Your task to perform on an android device: open app "Google Play Music" (install if not already installed) Image 0: 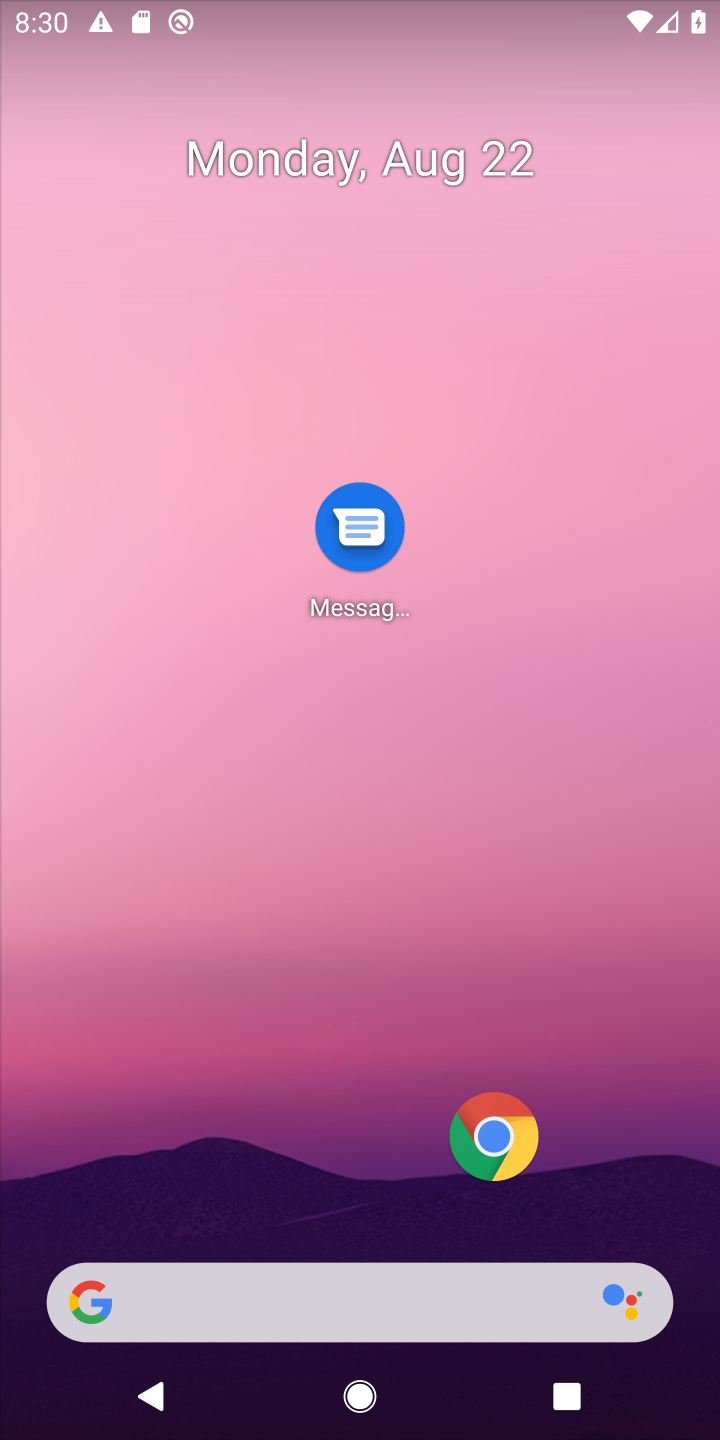
Step 0: drag from (265, 1165) to (306, 405)
Your task to perform on an android device: open app "Google Play Music" (install if not already installed) Image 1: 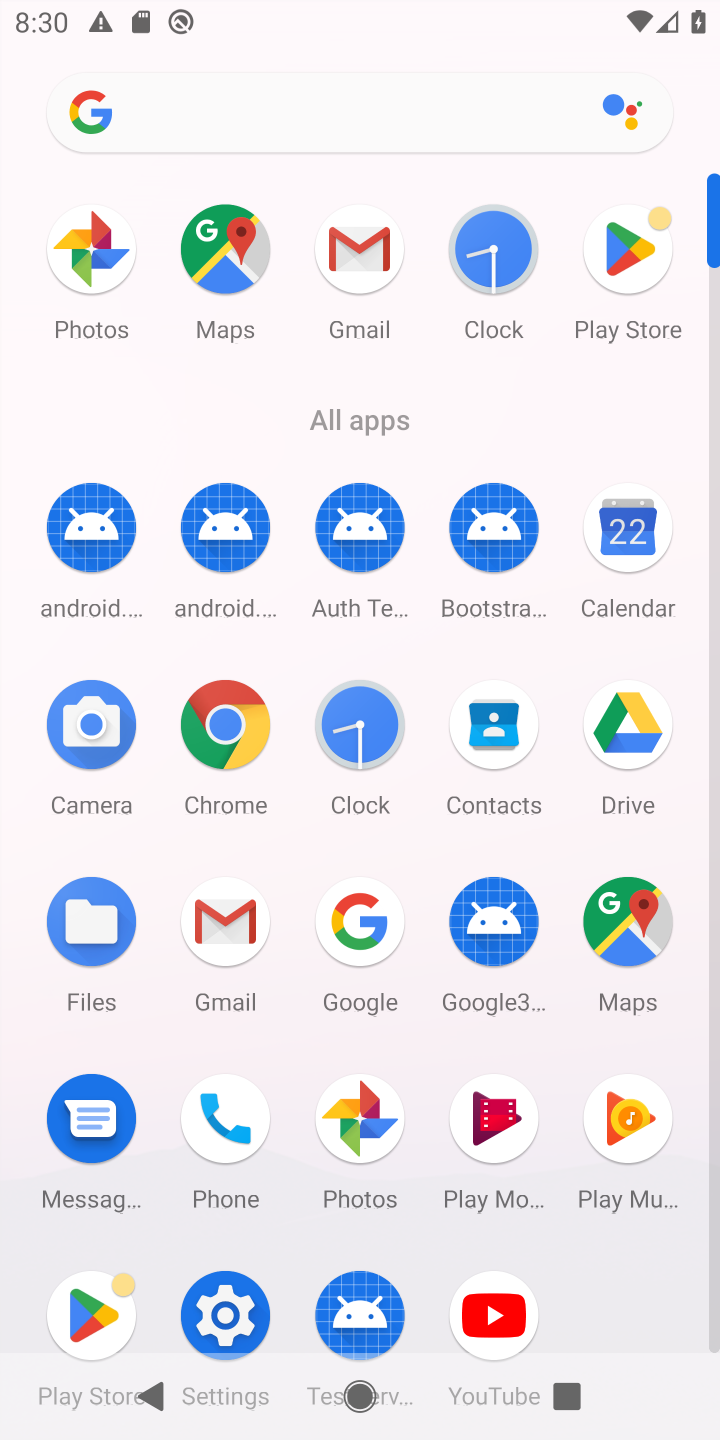
Step 1: click (653, 241)
Your task to perform on an android device: open app "Google Play Music" (install if not already installed) Image 2: 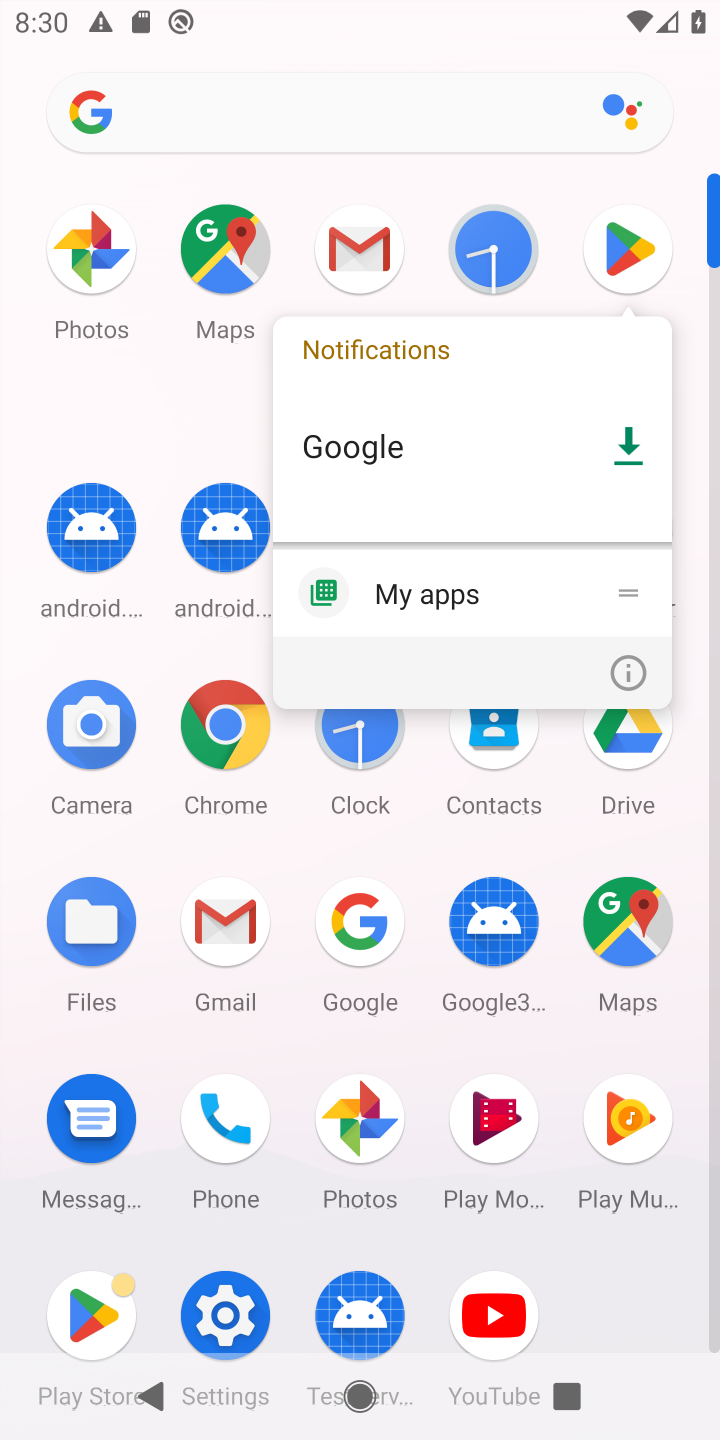
Step 2: click (612, 244)
Your task to perform on an android device: open app "Google Play Music" (install if not already installed) Image 3: 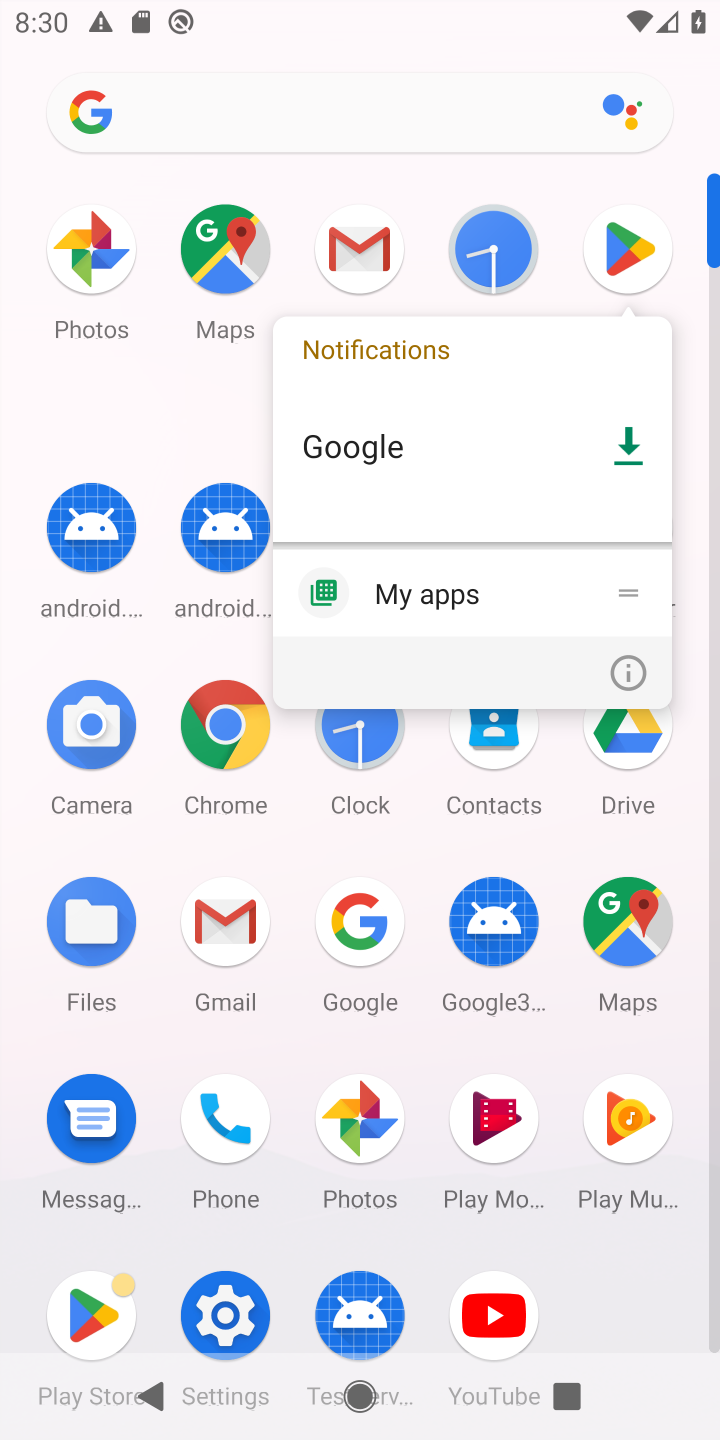
Step 3: click (612, 244)
Your task to perform on an android device: open app "Google Play Music" (install if not already installed) Image 4: 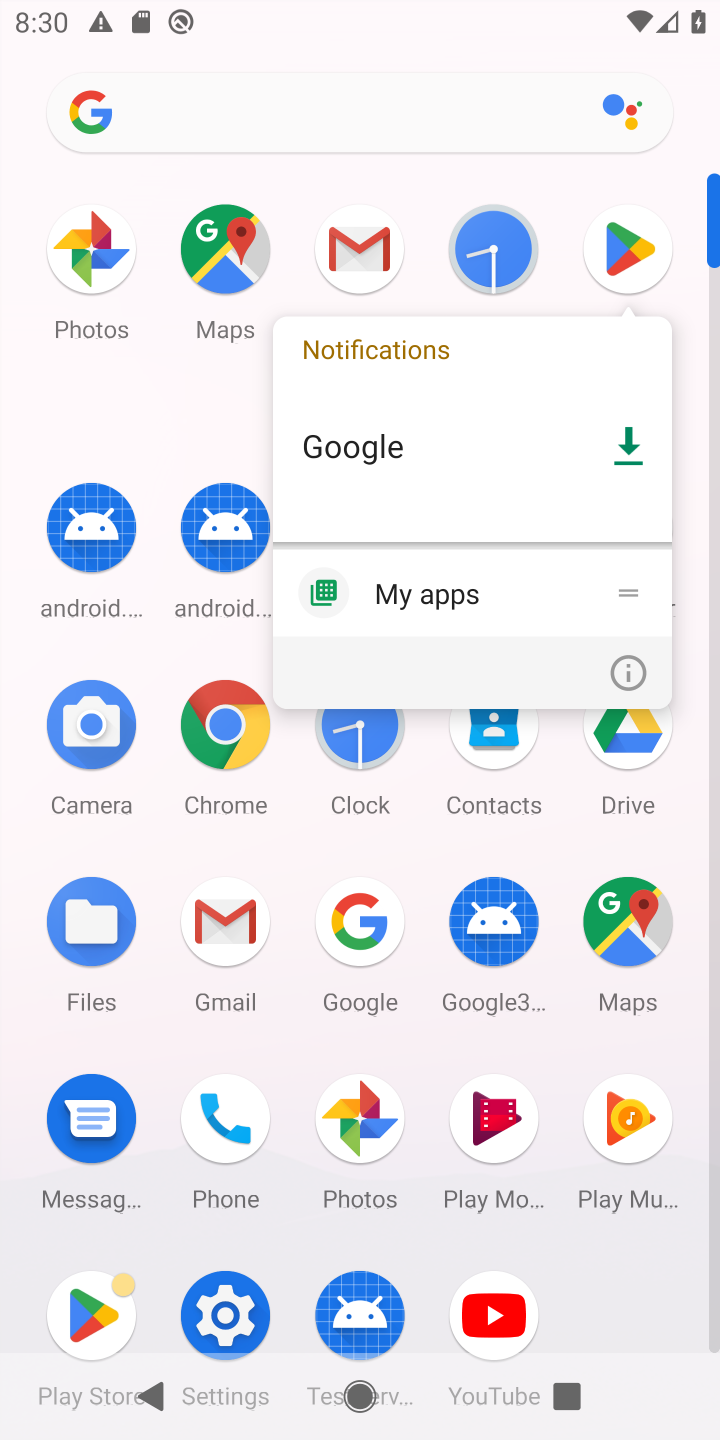
Step 4: click (620, 244)
Your task to perform on an android device: open app "Google Play Music" (install if not already installed) Image 5: 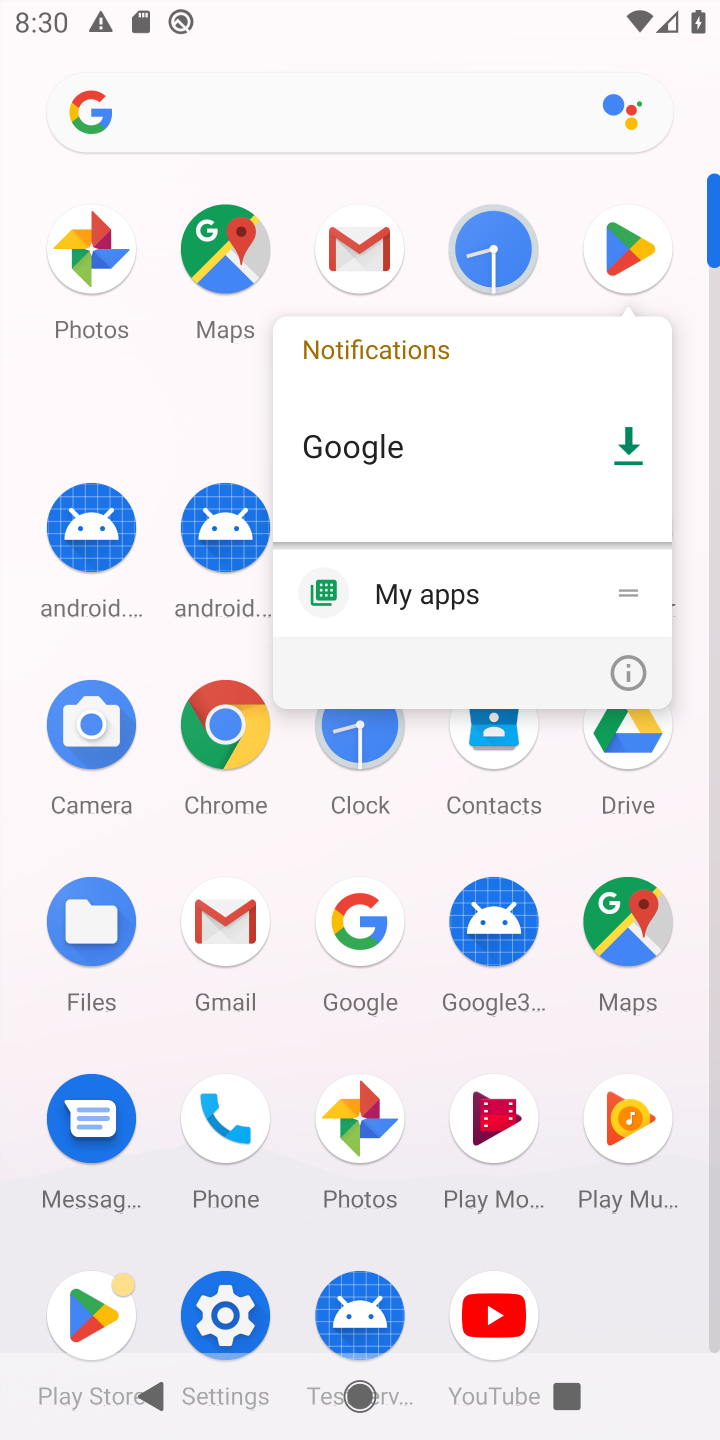
Step 5: click (80, 1298)
Your task to perform on an android device: open app "Google Play Music" (install if not already installed) Image 6: 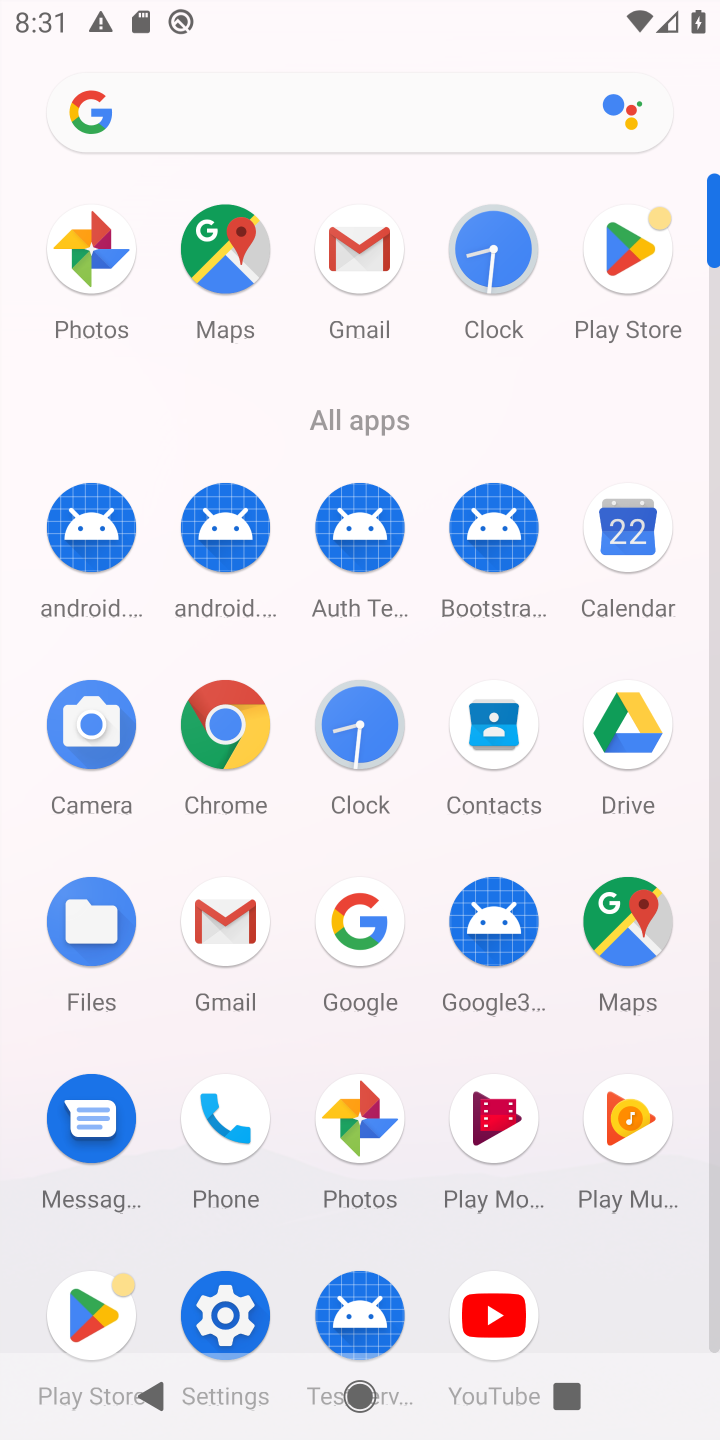
Step 6: click (84, 1326)
Your task to perform on an android device: open app "Google Play Music" (install if not already installed) Image 7: 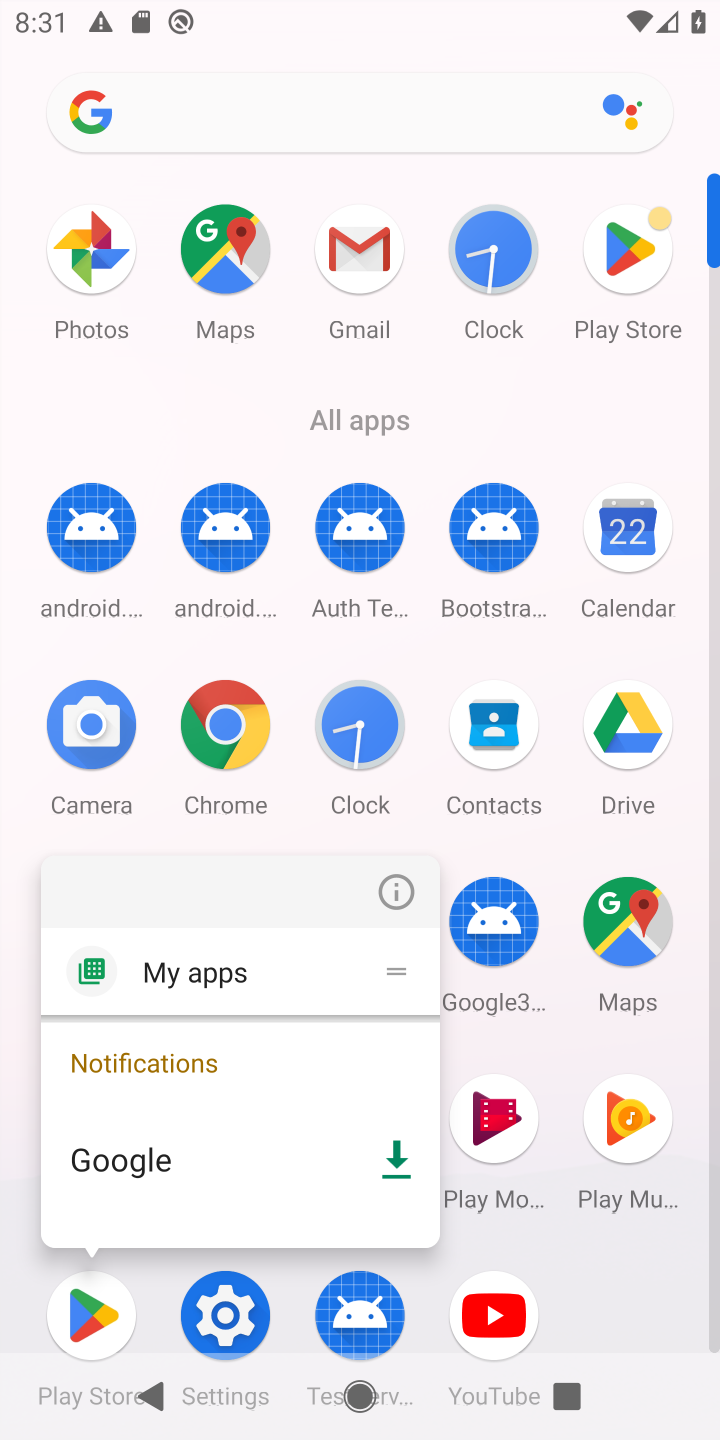
Step 7: click (631, 250)
Your task to perform on an android device: open app "Google Play Music" (install if not already installed) Image 8: 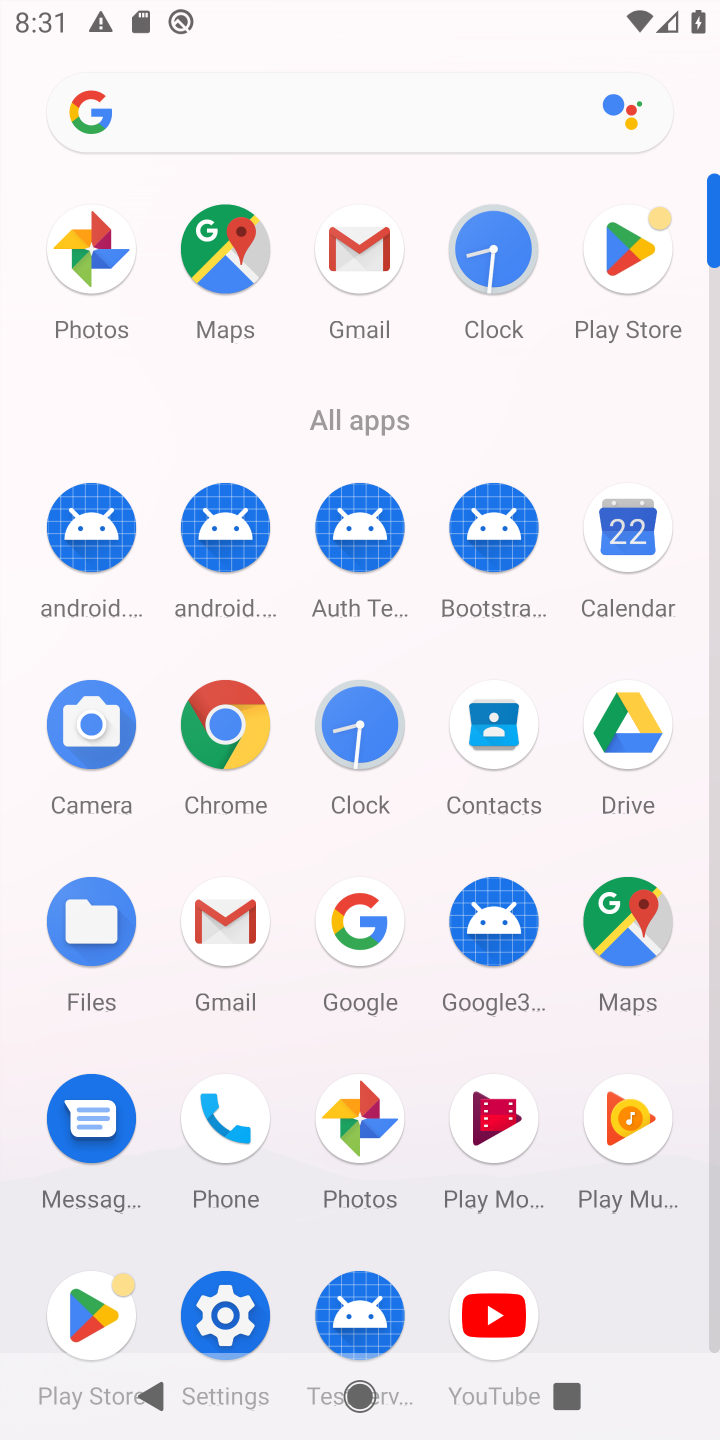
Step 8: click (615, 219)
Your task to perform on an android device: open app "Google Play Music" (install if not already installed) Image 9: 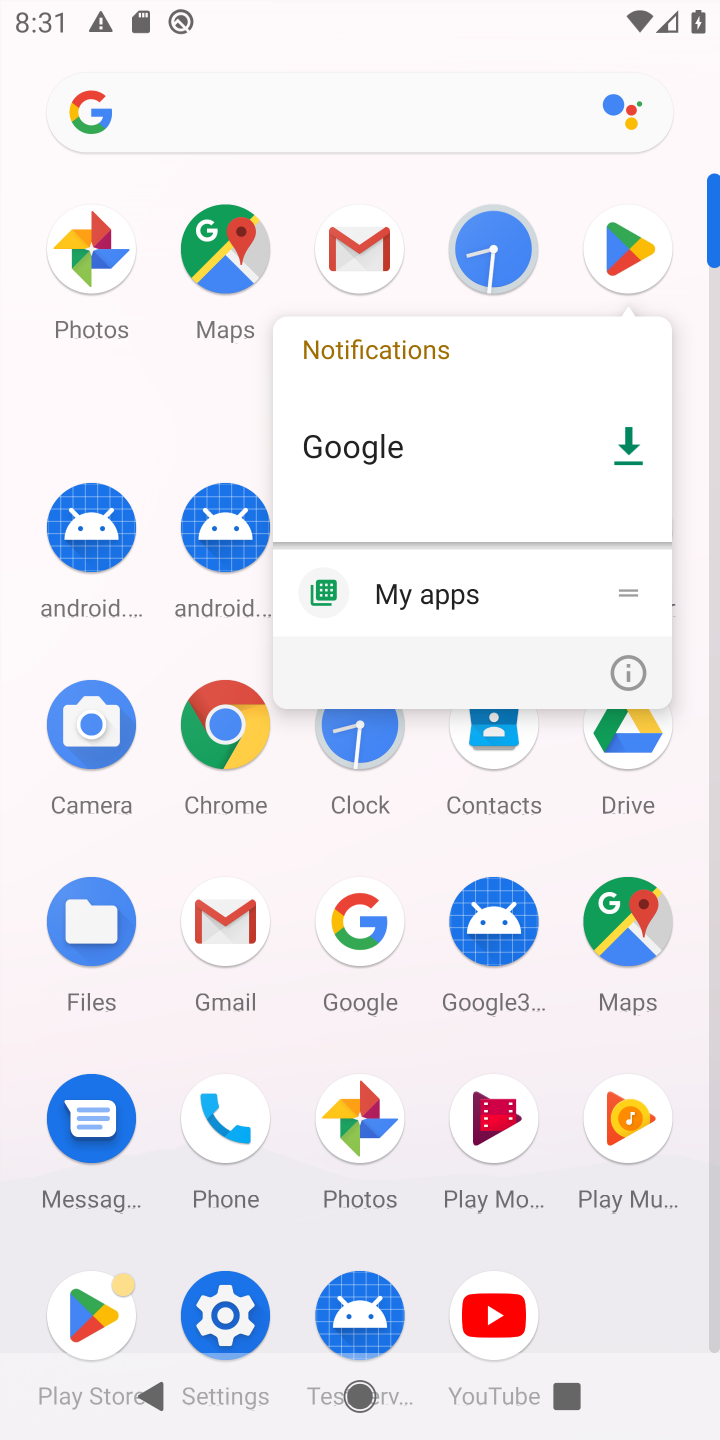
Step 9: click (615, 248)
Your task to perform on an android device: open app "Google Play Music" (install if not already installed) Image 10: 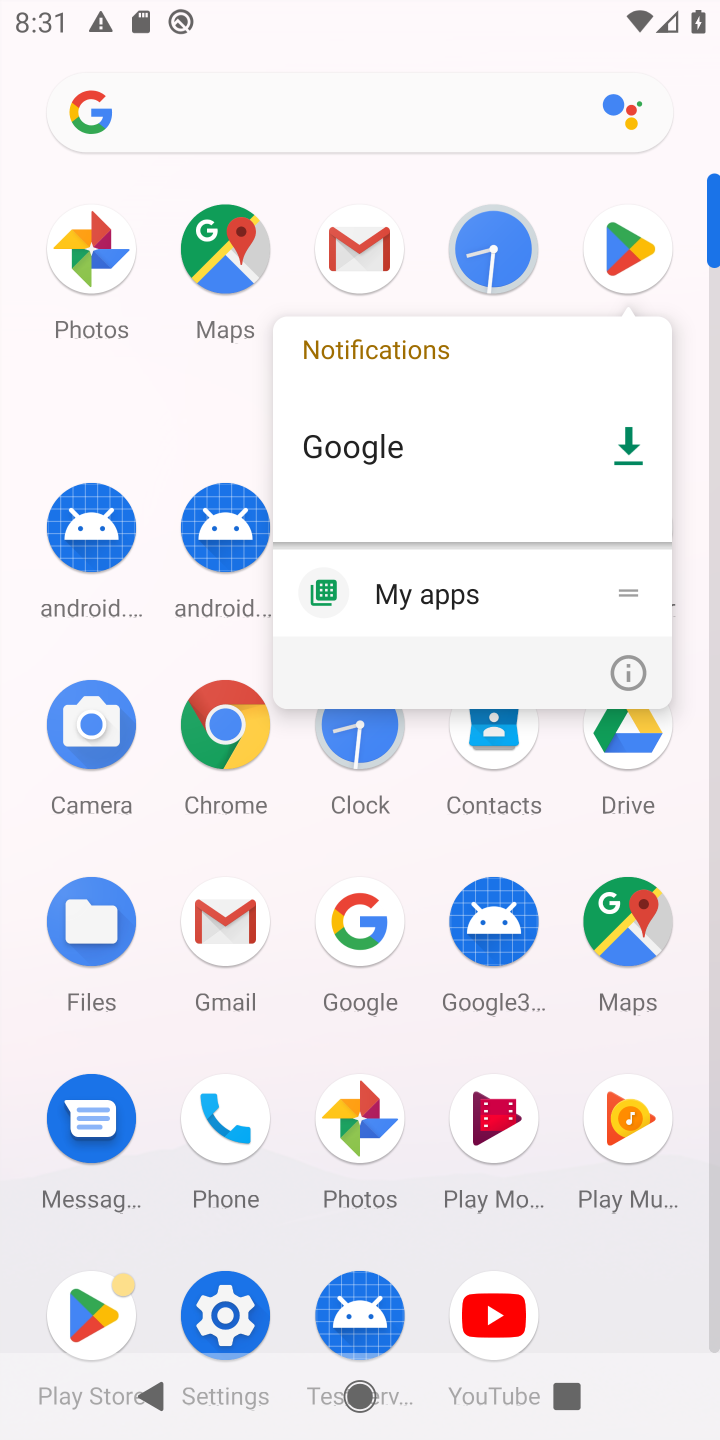
Step 10: click (634, 229)
Your task to perform on an android device: open app "Google Play Music" (install if not already installed) Image 11: 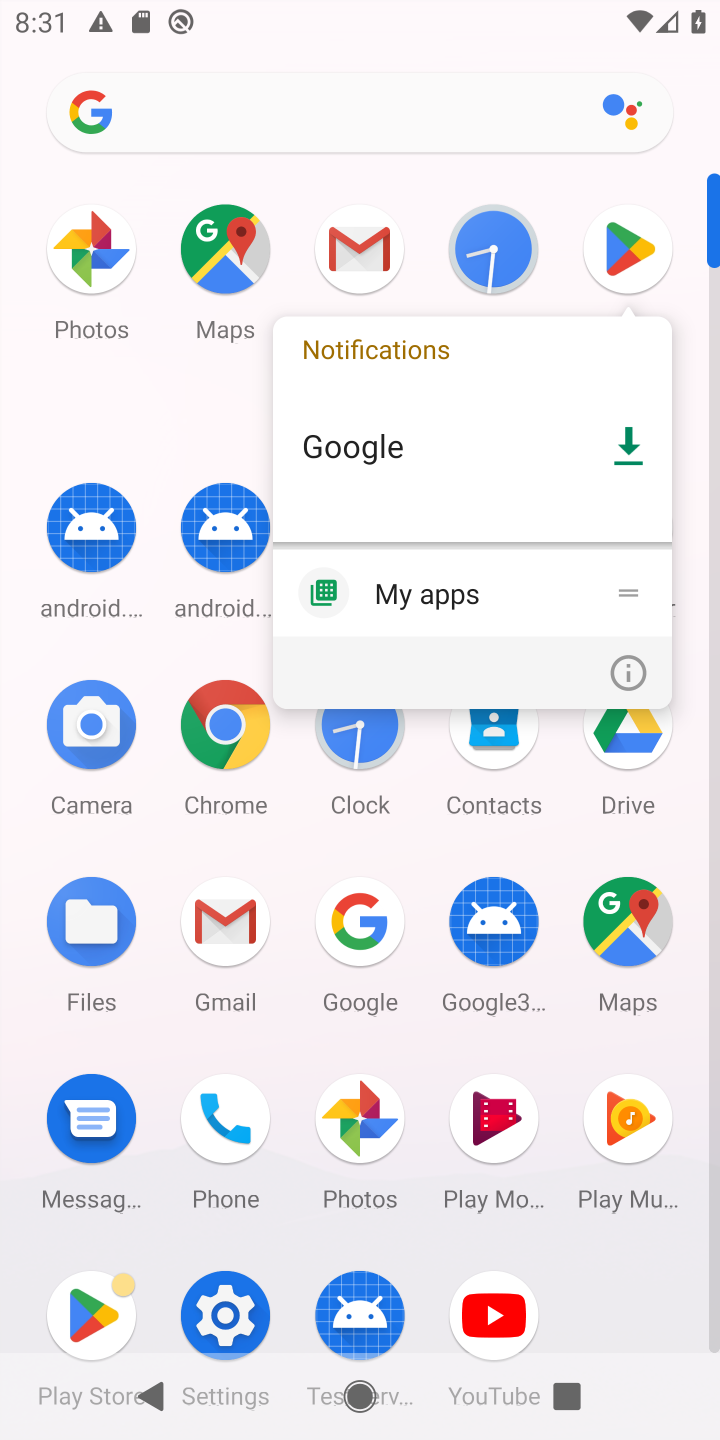
Step 11: click (610, 233)
Your task to perform on an android device: open app "Google Play Music" (install if not already installed) Image 12: 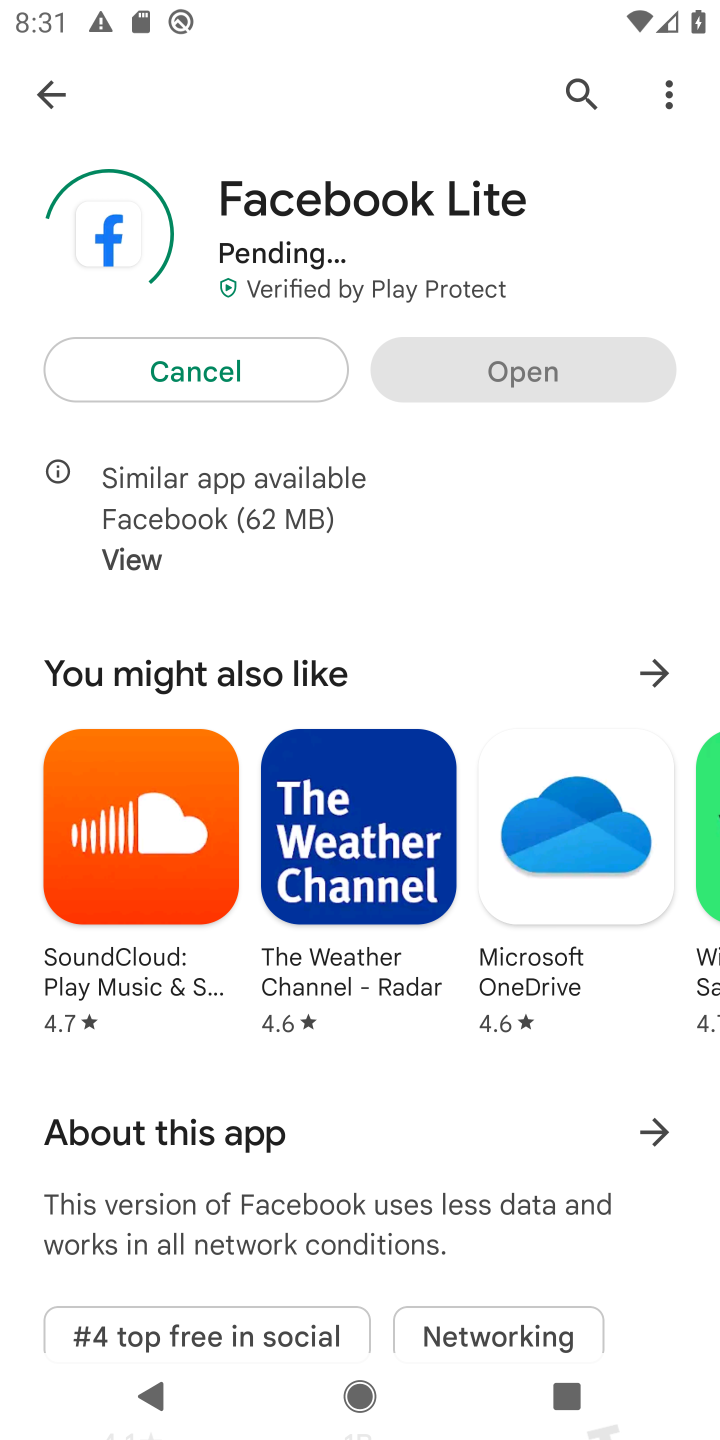
Step 12: click (54, 86)
Your task to perform on an android device: open app "Google Play Music" (install if not already installed) Image 13: 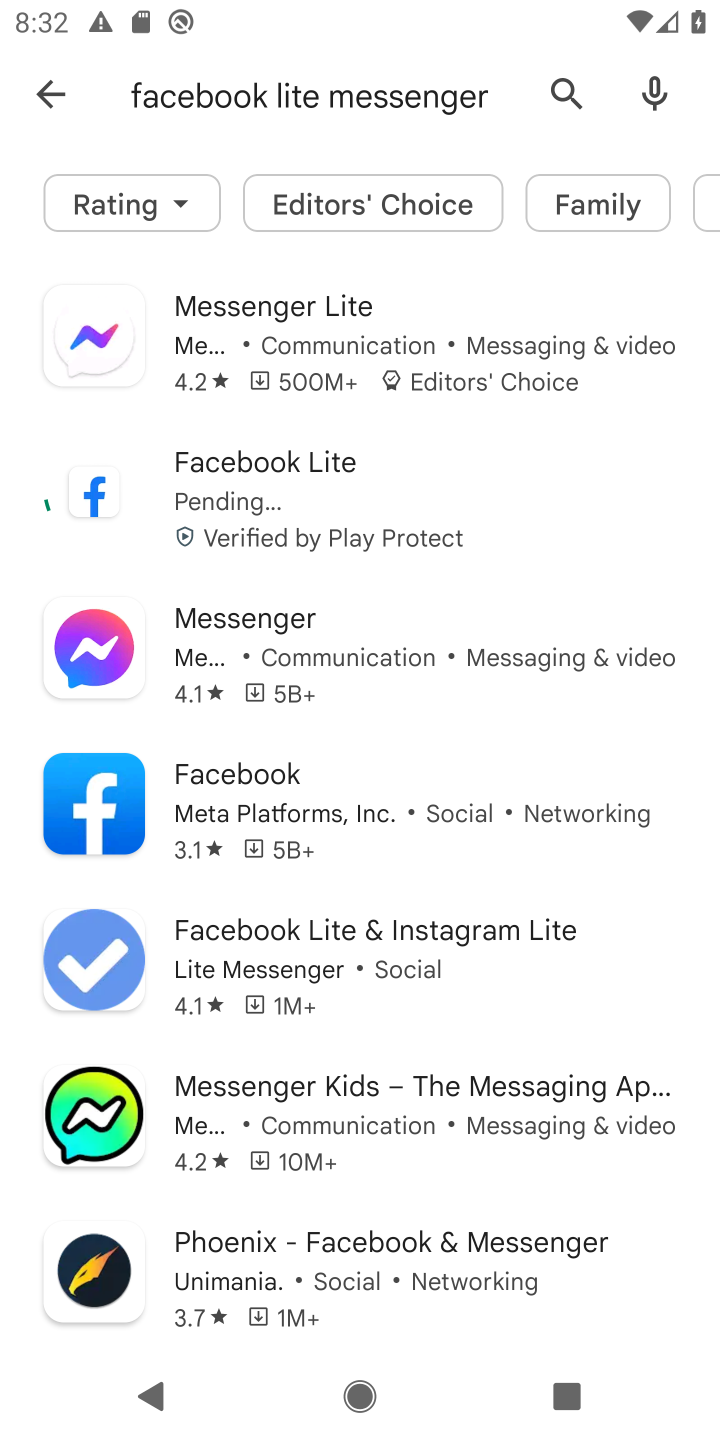
Step 13: click (78, 87)
Your task to perform on an android device: open app "Google Play Music" (install if not already installed) Image 14: 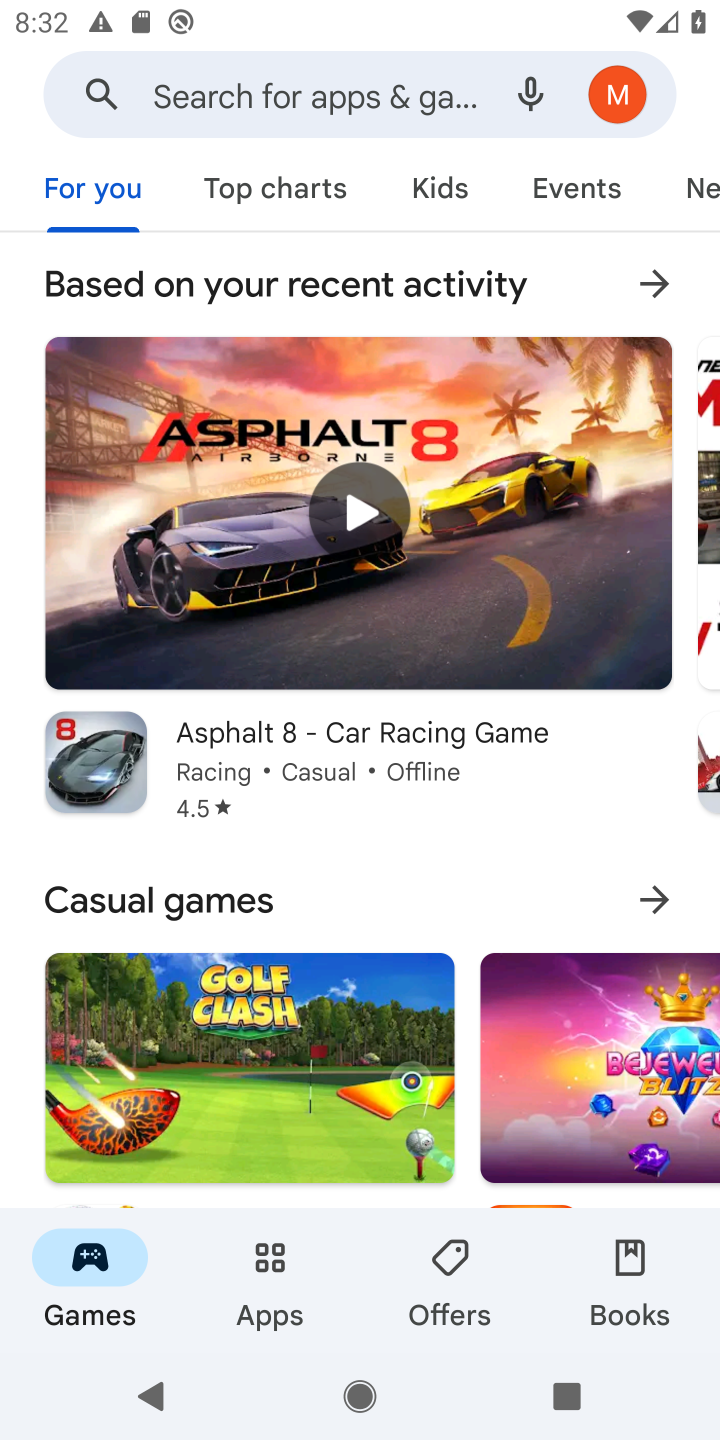
Step 14: click (309, 74)
Your task to perform on an android device: open app "Google Play Music" (install if not already installed) Image 15: 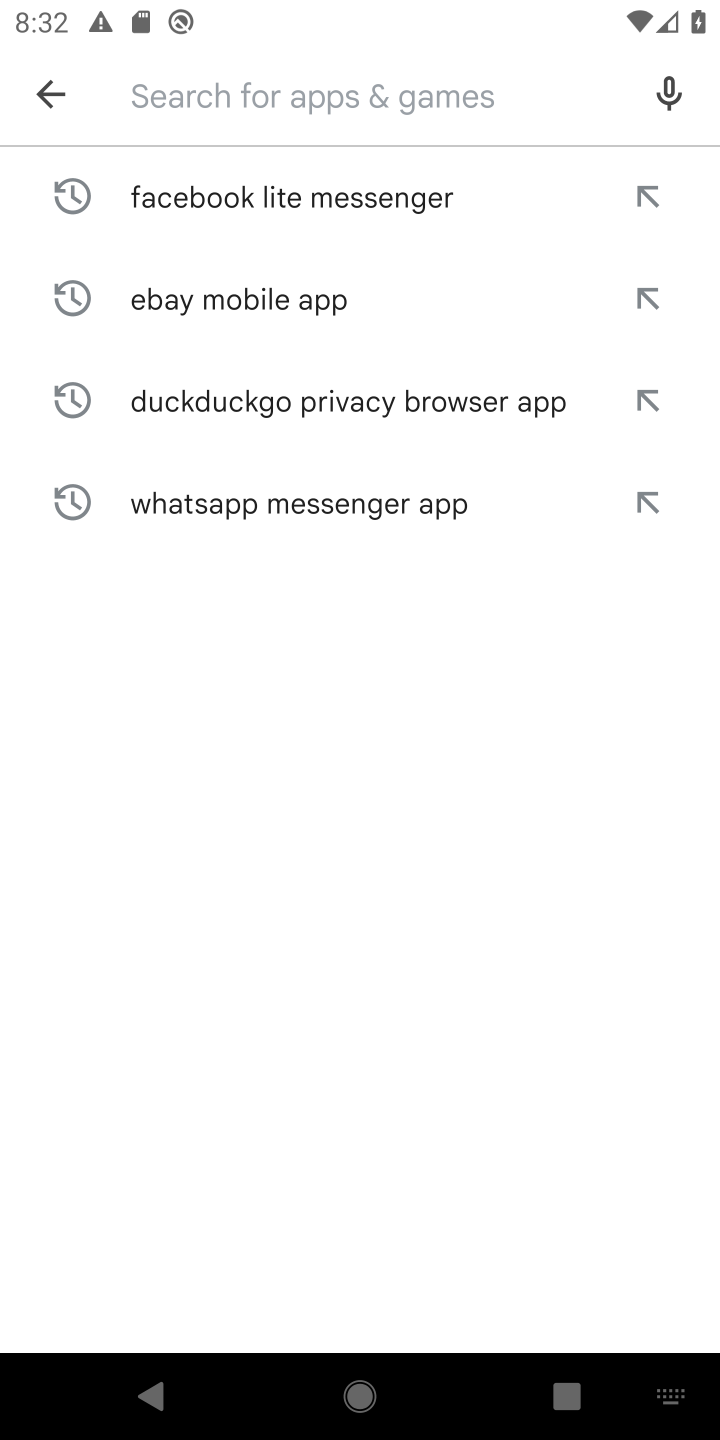
Step 15: type "Google Play Music "
Your task to perform on an android device: open app "Google Play Music" (install if not already installed) Image 16: 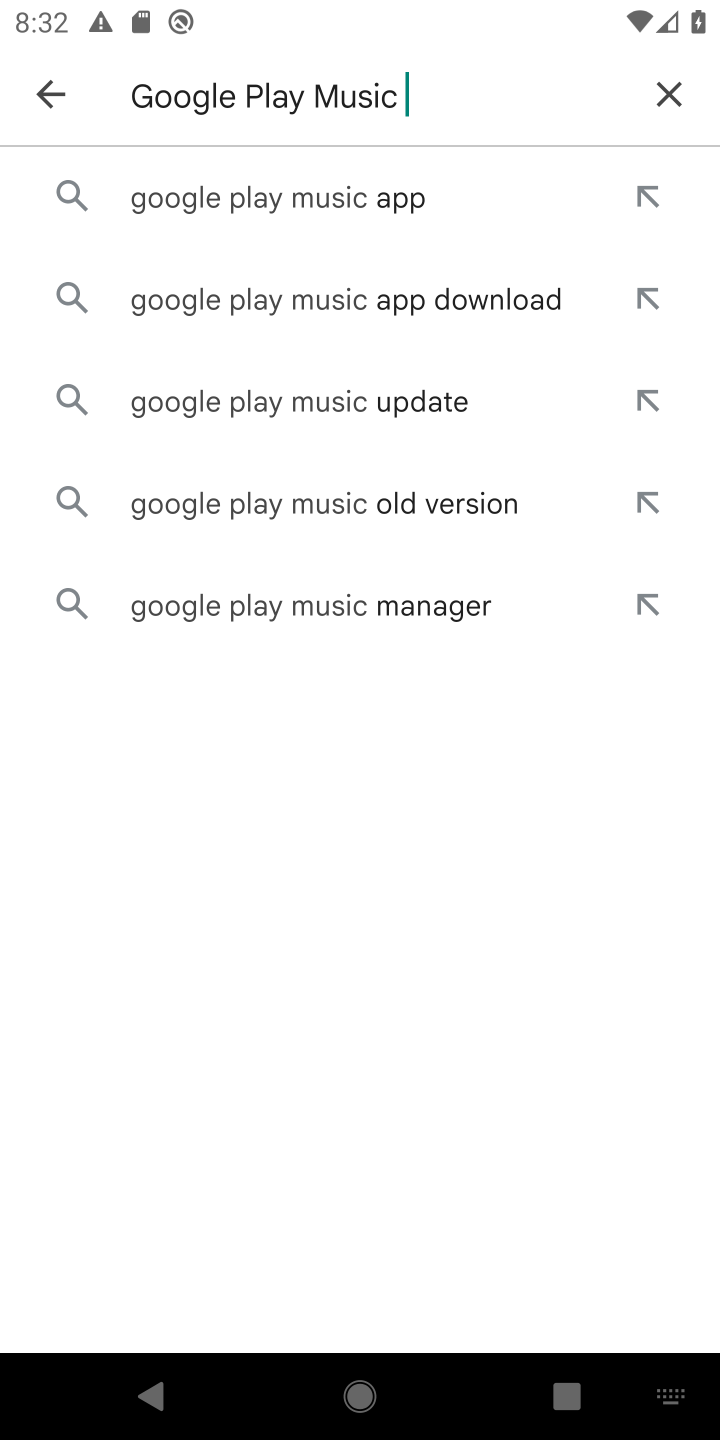
Step 16: click (345, 182)
Your task to perform on an android device: open app "Google Play Music" (install if not already installed) Image 17: 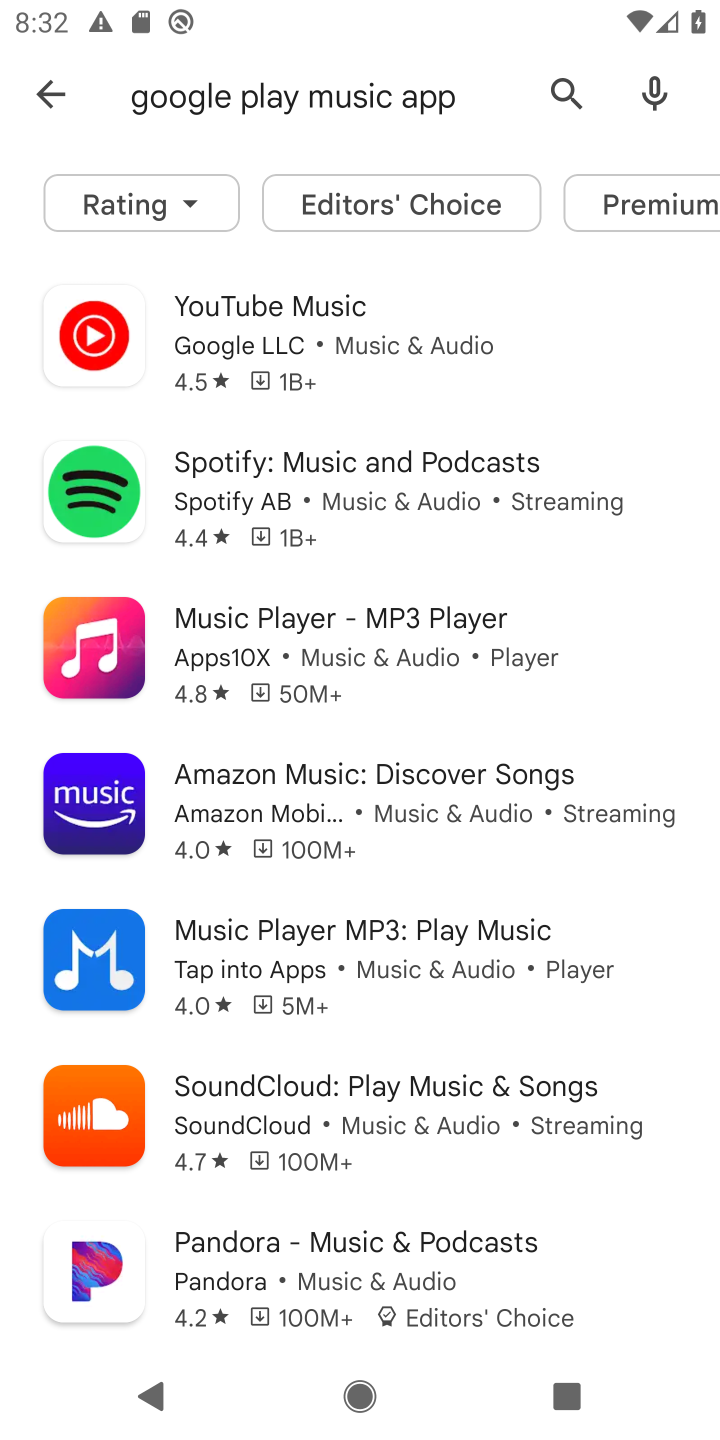
Step 17: click (333, 301)
Your task to perform on an android device: open app "Google Play Music" (install if not already installed) Image 18: 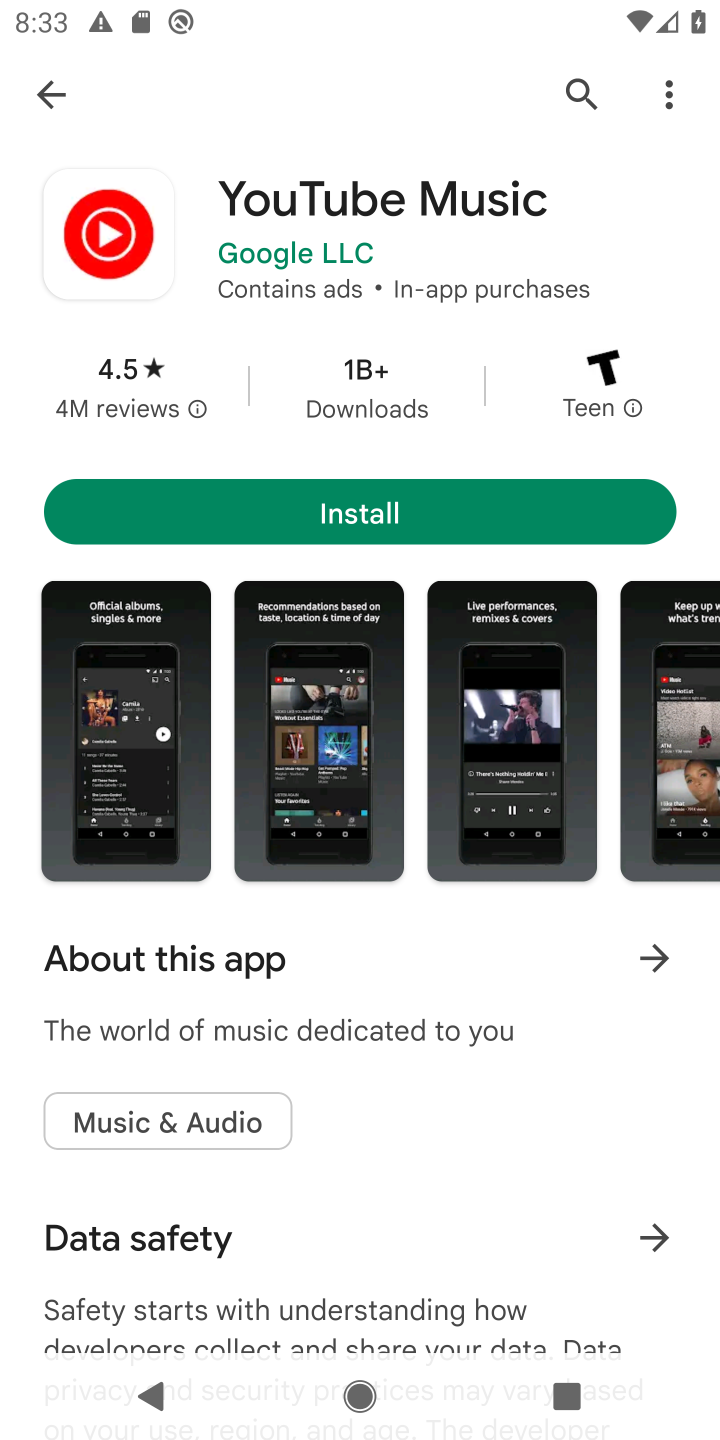
Step 18: click (376, 525)
Your task to perform on an android device: open app "Google Play Music" (install if not already installed) Image 19: 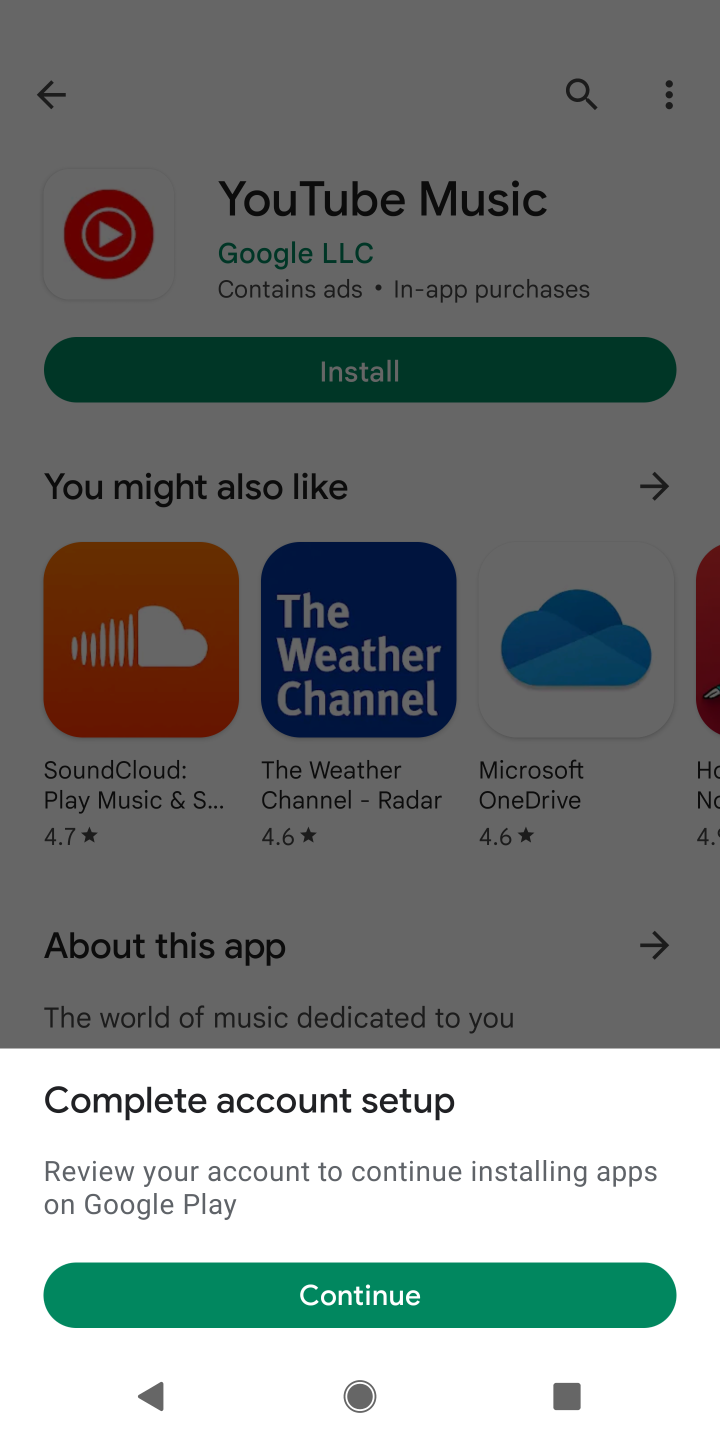
Step 19: task complete